Your task to perform on an android device: change timer sound Image 0: 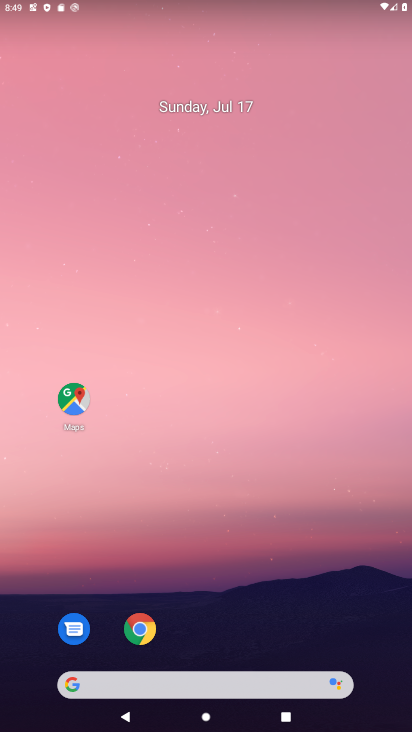
Step 0: drag from (234, 725) to (228, 123)
Your task to perform on an android device: change timer sound Image 1: 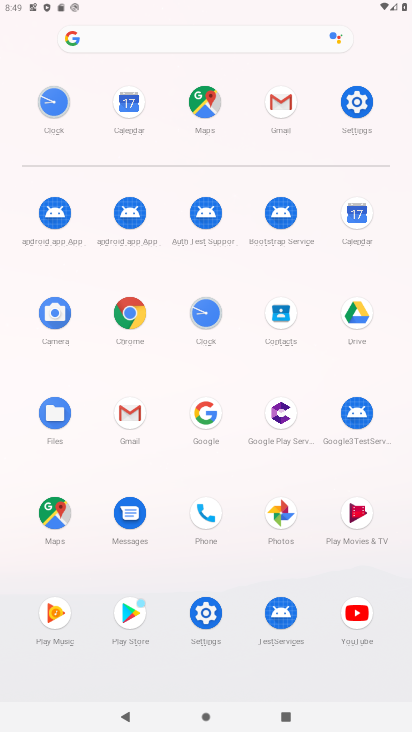
Step 1: click (207, 308)
Your task to perform on an android device: change timer sound Image 2: 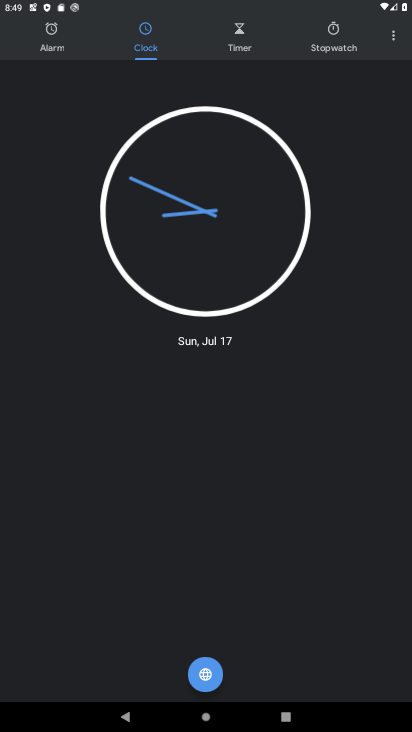
Step 2: click (394, 39)
Your task to perform on an android device: change timer sound Image 3: 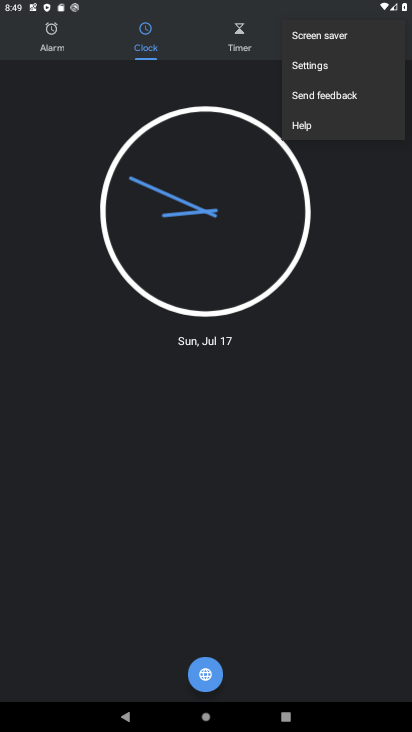
Step 3: click (311, 66)
Your task to perform on an android device: change timer sound Image 4: 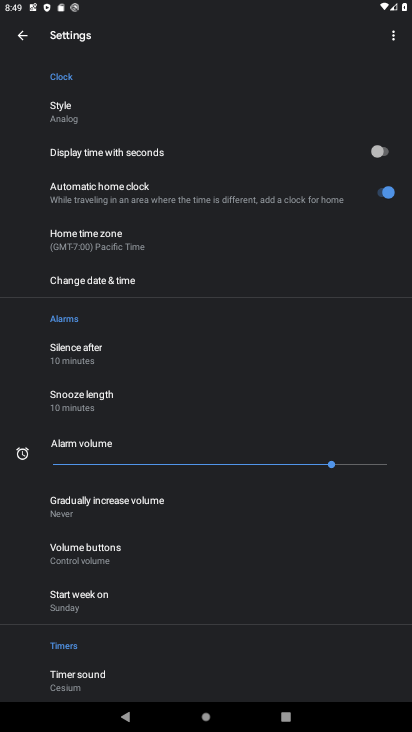
Step 4: click (90, 671)
Your task to perform on an android device: change timer sound Image 5: 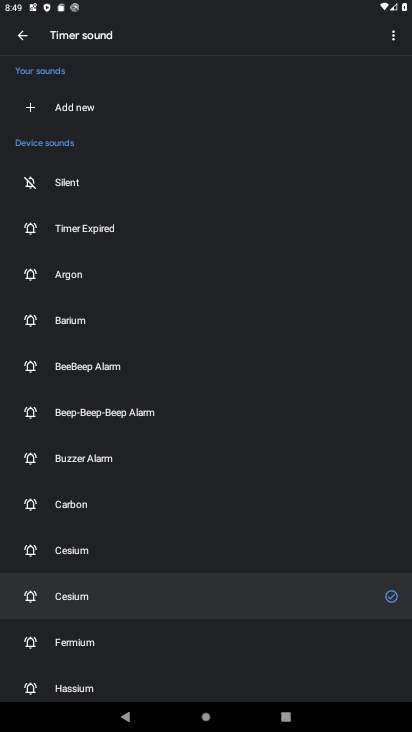
Step 5: click (85, 357)
Your task to perform on an android device: change timer sound Image 6: 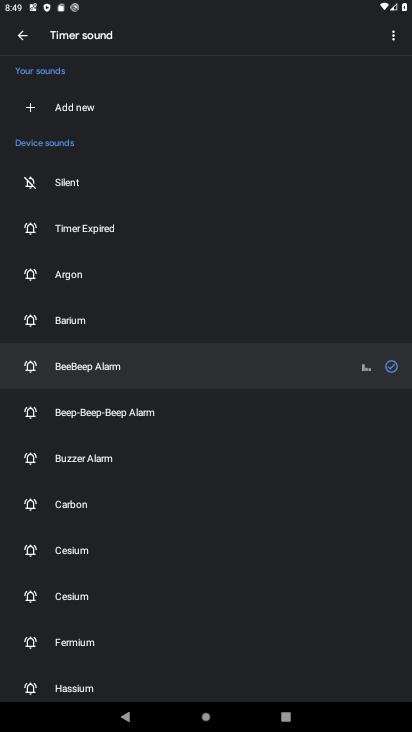
Step 6: task complete